Your task to perform on an android device: turn on improve location accuracy Image 0: 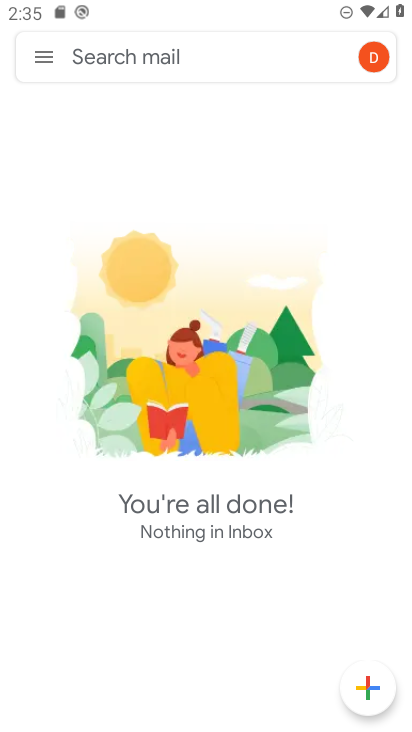
Step 0: press home button
Your task to perform on an android device: turn on improve location accuracy Image 1: 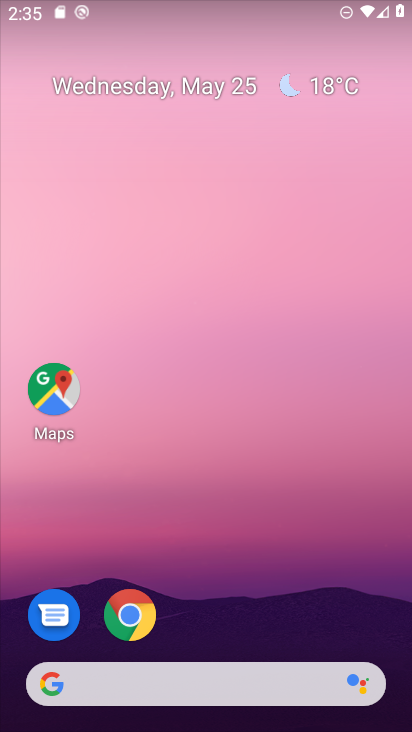
Step 1: drag from (296, 558) to (317, 25)
Your task to perform on an android device: turn on improve location accuracy Image 2: 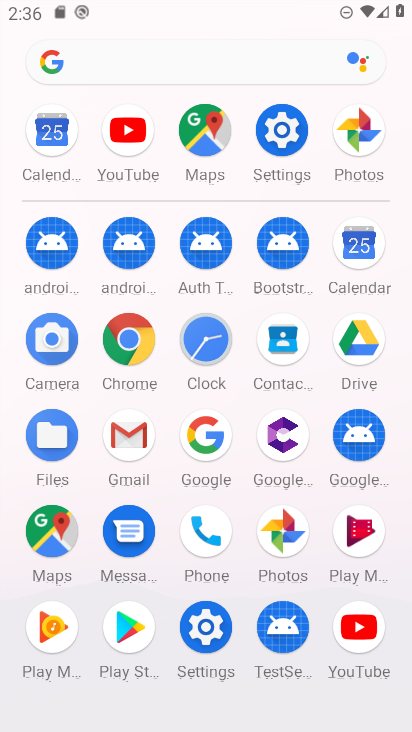
Step 2: click (286, 121)
Your task to perform on an android device: turn on improve location accuracy Image 3: 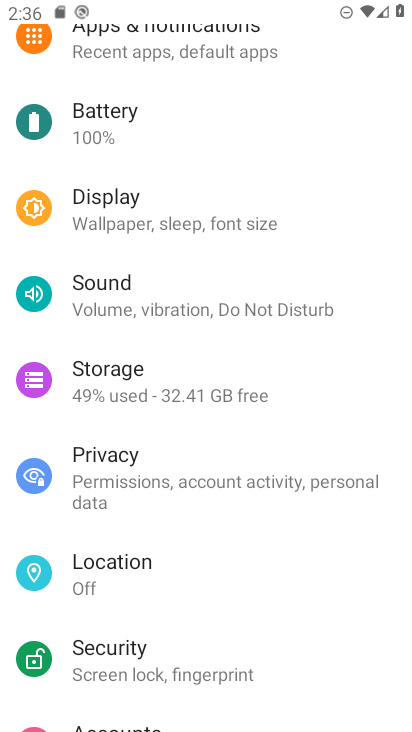
Step 3: click (146, 555)
Your task to perform on an android device: turn on improve location accuracy Image 4: 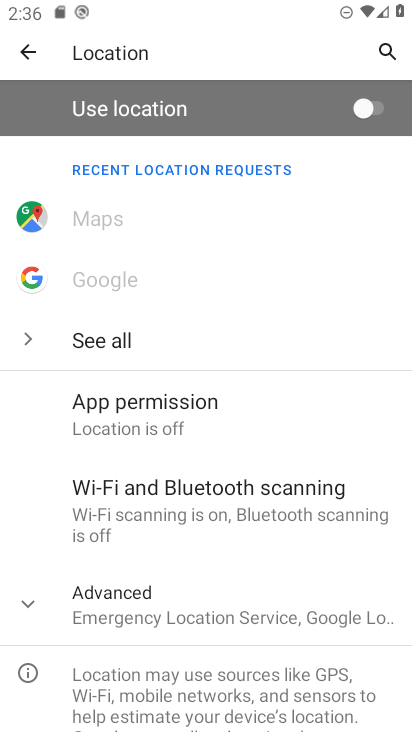
Step 4: drag from (252, 445) to (274, 217)
Your task to perform on an android device: turn on improve location accuracy Image 5: 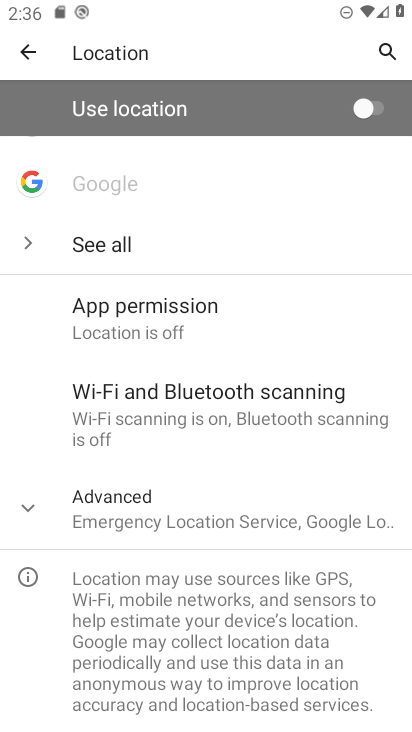
Step 5: click (28, 504)
Your task to perform on an android device: turn on improve location accuracy Image 6: 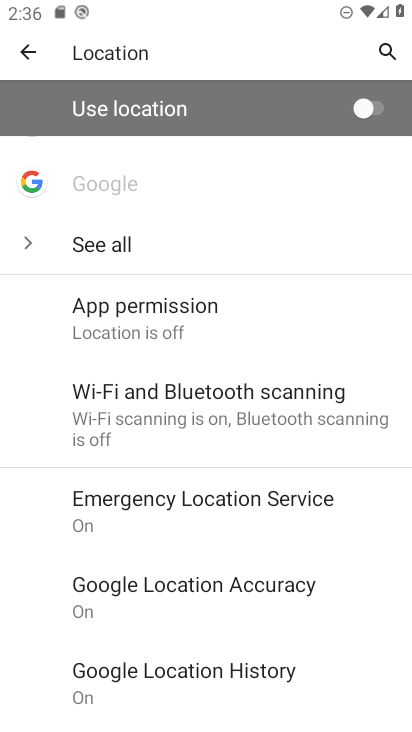
Step 6: task complete